Your task to perform on an android device: Go to CNN.com Image 0: 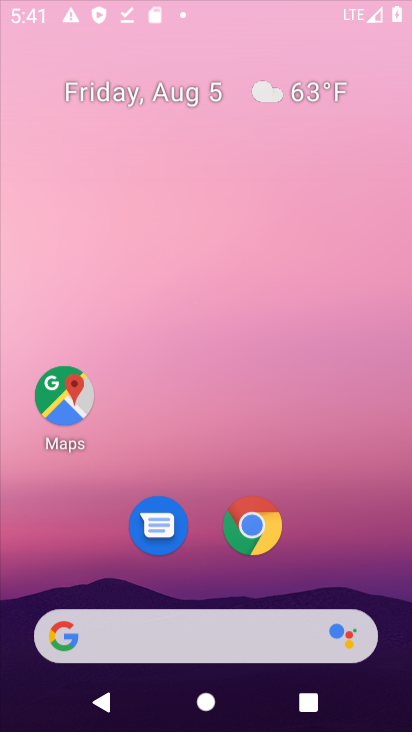
Step 0: click (244, 80)
Your task to perform on an android device: Go to CNN.com Image 1: 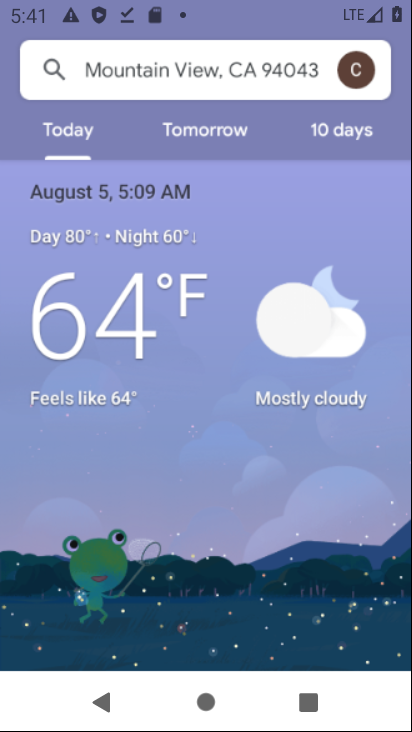
Step 1: drag from (217, 579) to (221, 210)
Your task to perform on an android device: Go to CNN.com Image 2: 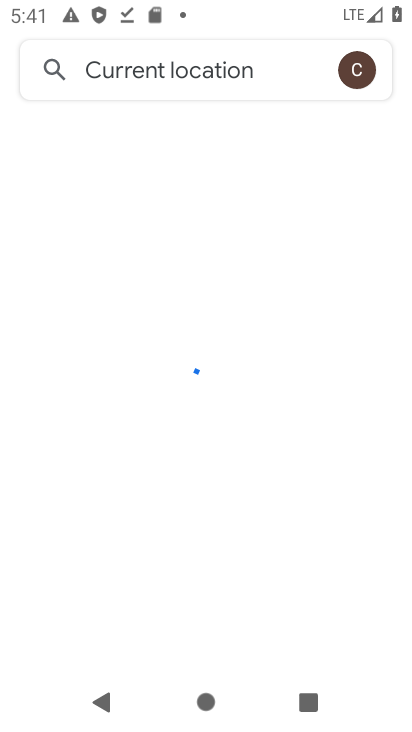
Step 2: press home button
Your task to perform on an android device: Go to CNN.com Image 3: 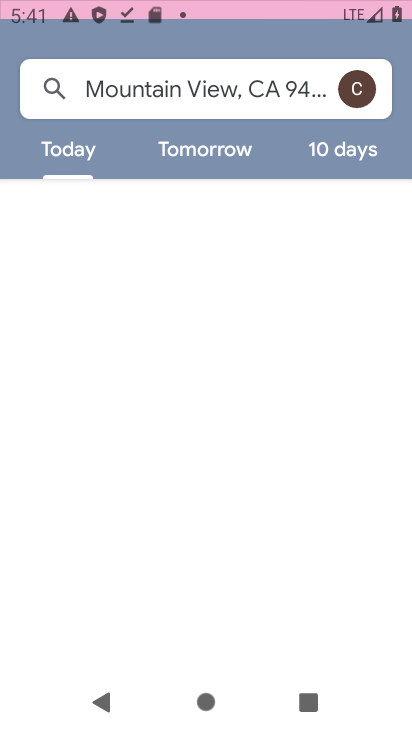
Step 3: drag from (282, 524) to (297, 36)
Your task to perform on an android device: Go to CNN.com Image 4: 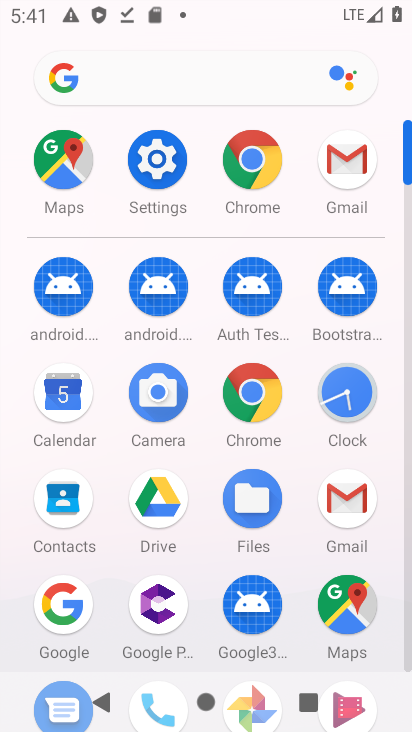
Step 4: click (142, 82)
Your task to perform on an android device: Go to CNN.com Image 5: 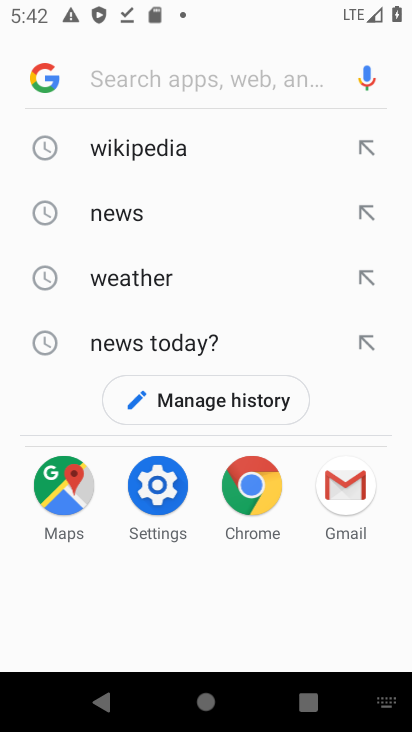
Step 5: click (89, 77)
Your task to perform on an android device: Go to CNN.com Image 6: 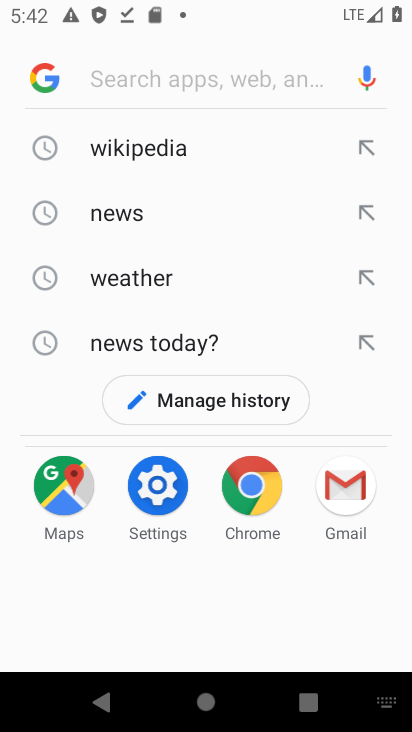
Step 6: type "CNN.com"
Your task to perform on an android device: Go to CNN.com Image 7: 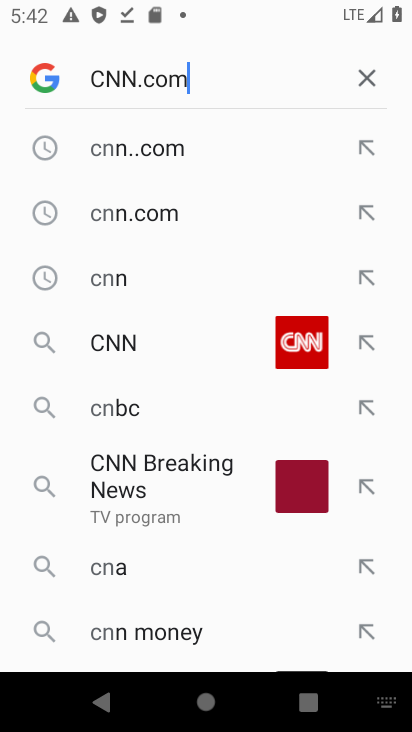
Step 7: type ""
Your task to perform on an android device: Go to CNN.com Image 8: 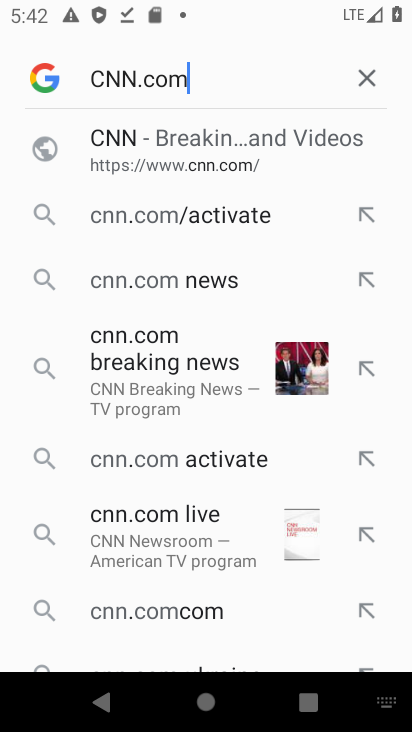
Step 8: click (122, 124)
Your task to perform on an android device: Go to CNN.com Image 9: 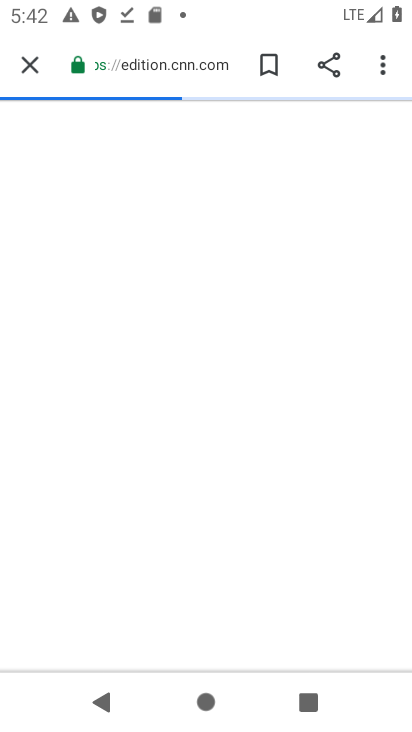
Step 9: task complete